Your task to perform on an android device: Open Chrome and go to the settings page Image 0: 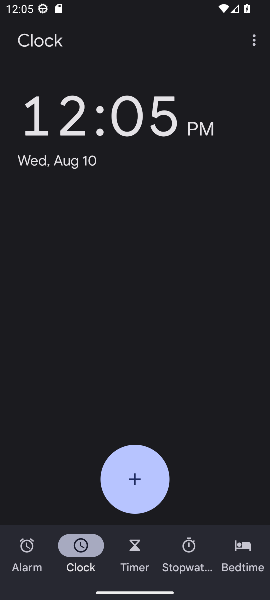
Step 0: press home button
Your task to perform on an android device: Open Chrome and go to the settings page Image 1: 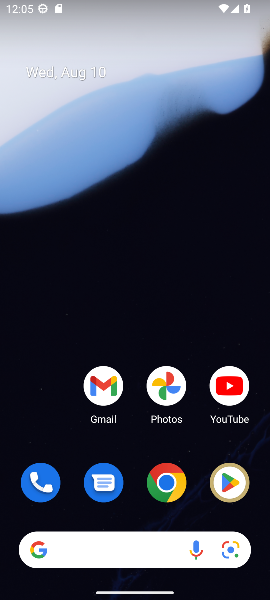
Step 1: click (162, 492)
Your task to perform on an android device: Open Chrome and go to the settings page Image 2: 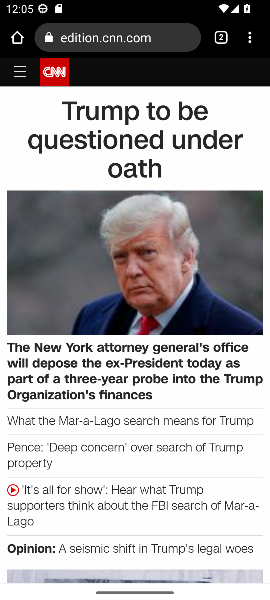
Step 2: click (258, 40)
Your task to perform on an android device: Open Chrome and go to the settings page Image 3: 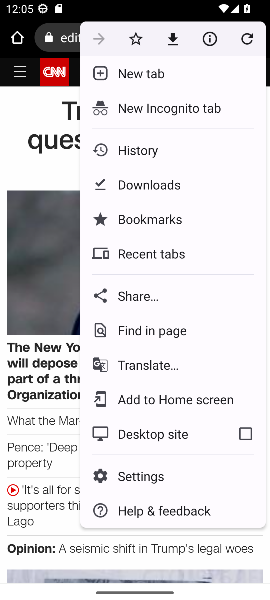
Step 3: click (154, 466)
Your task to perform on an android device: Open Chrome and go to the settings page Image 4: 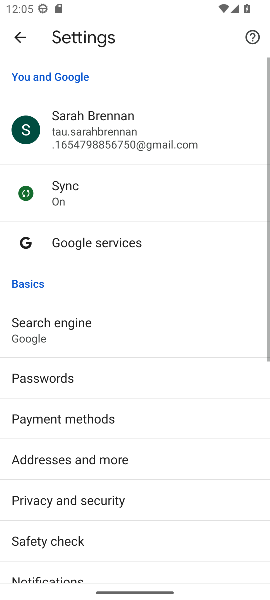
Step 4: task complete